Your task to perform on an android device: Go to ESPN.com Image 0: 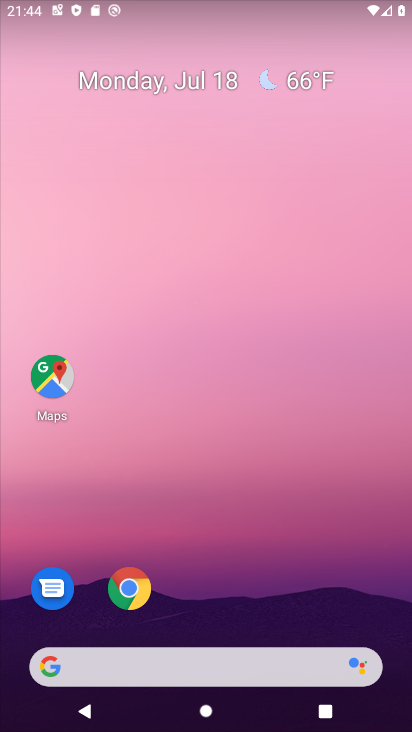
Step 0: press home button
Your task to perform on an android device: Go to ESPN.com Image 1: 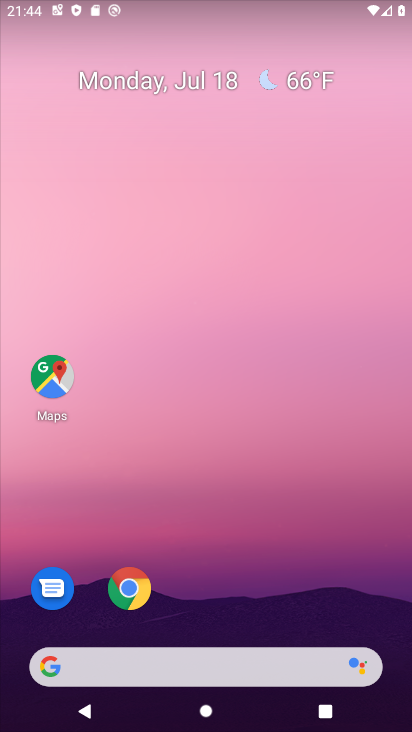
Step 1: click (129, 585)
Your task to perform on an android device: Go to ESPN.com Image 2: 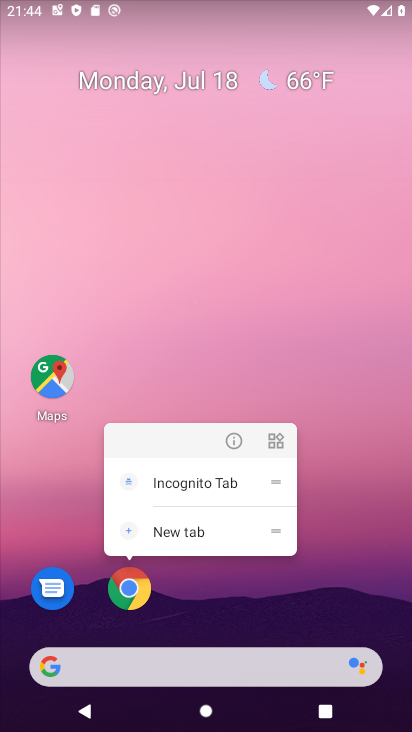
Step 2: click (129, 584)
Your task to perform on an android device: Go to ESPN.com Image 3: 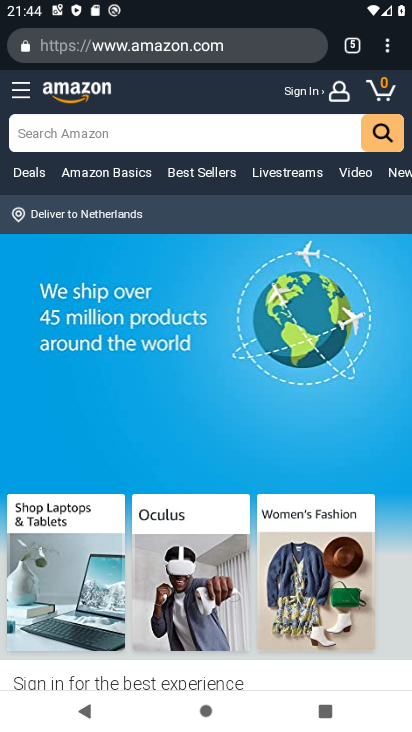
Step 3: drag from (384, 54) to (306, 91)
Your task to perform on an android device: Go to ESPN.com Image 4: 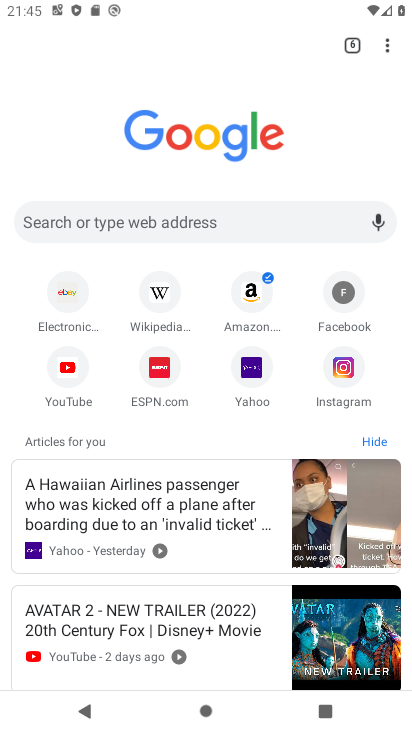
Step 4: click (151, 366)
Your task to perform on an android device: Go to ESPN.com Image 5: 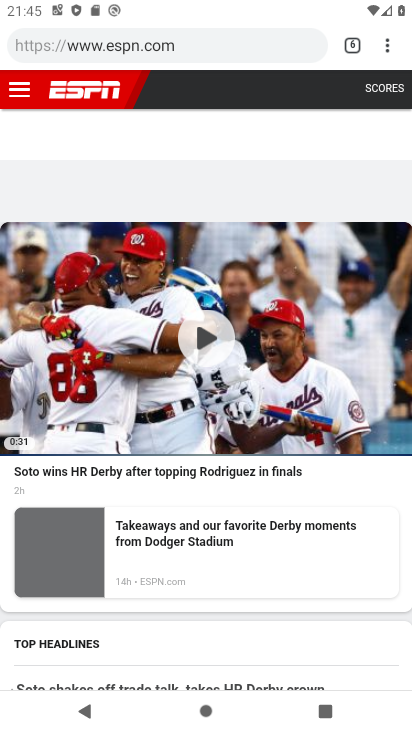
Step 5: task complete